Your task to perform on an android device: open sync settings in chrome Image 0: 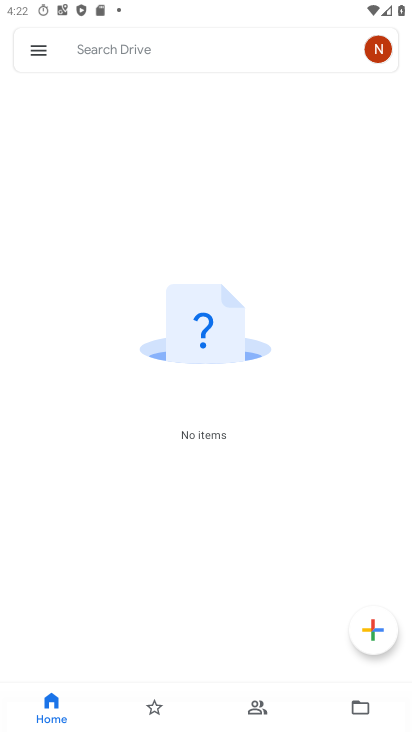
Step 0: press home button
Your task to perform on an android device: open sync settings in chrome Image 1: 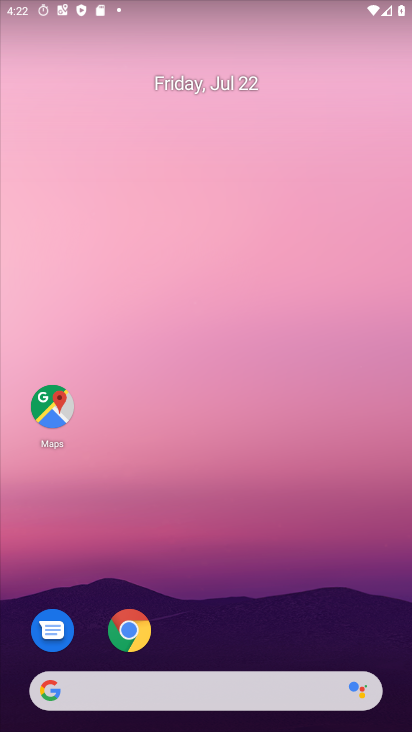
Step 1: drag from (235, 706) to (241, 71)
Your task to perform on an android device: open sync settings in chrome Image 2: 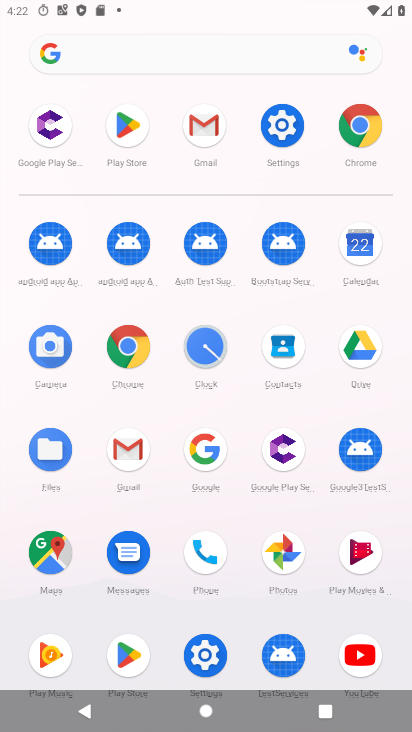
Step 2: click (133, 356)
Your task to perform on an android device: open sync settings in chrome Image 3: 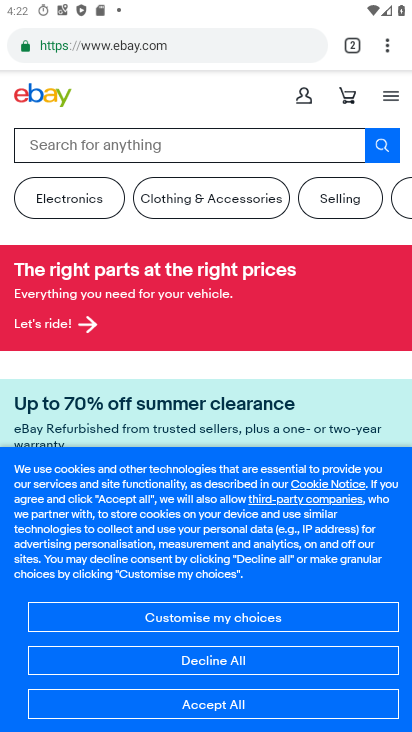
Step 3: drag from (389, 40) to (220, 559)
Your task to perform on an android device: open sync settings in chrome Image 4: 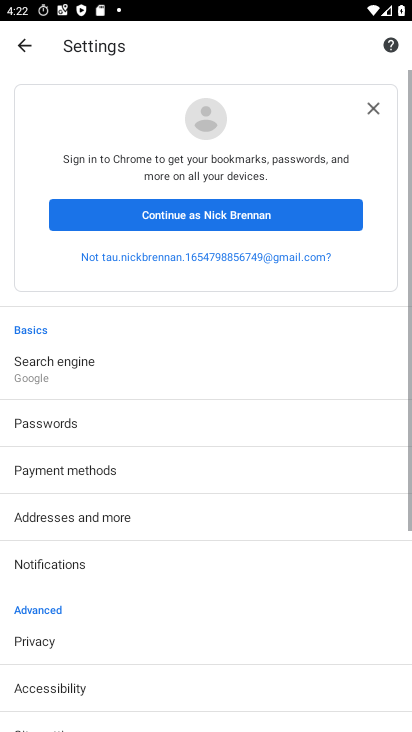
Step 4: drag from (181, 581) to (179, 180)
Your task to perform on an android device: open sync settings in chrome Image 5: 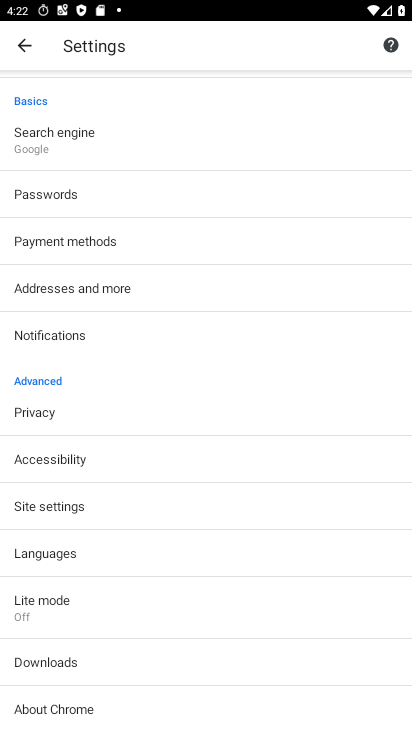
Step 5: click (115, 507)
Your task to perform on an android device: open sync settings in chrome Image 6: 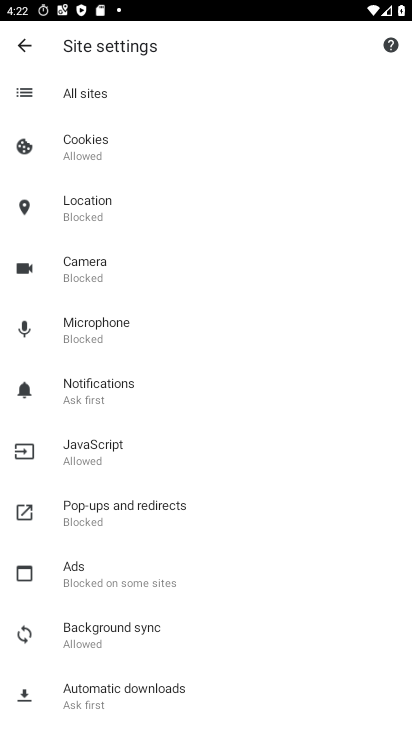
Step 6: click (141, 629)
Your task to perform on an android device: open sync settings in chrome Image 7: 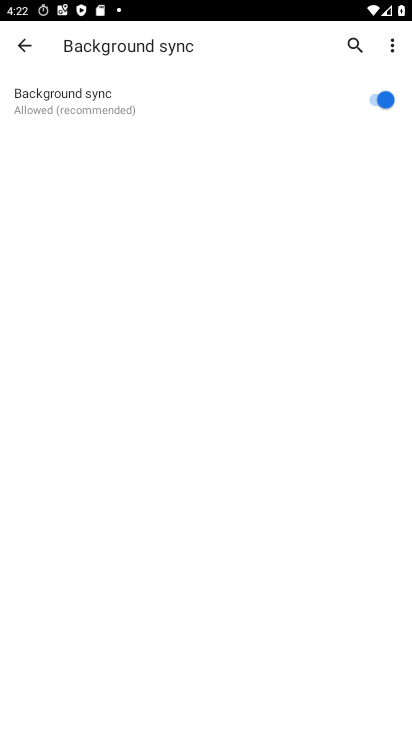
Step 7: task complete